Your task to perform on an android device: empty trash in google photos Image 0: 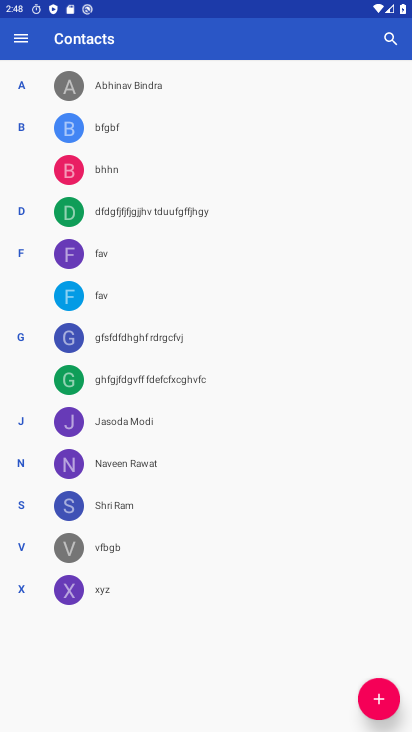
Step 0: press home button
Your task to perform on an android device: empty trash in google photos Image 1: 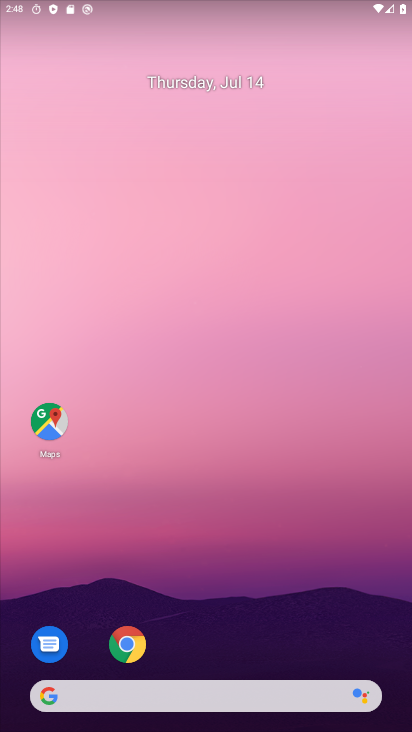
Step 1: drag from (25, 688) to (131, 324)
Your task to perform on an android device: empty trash in google photos Image 2: 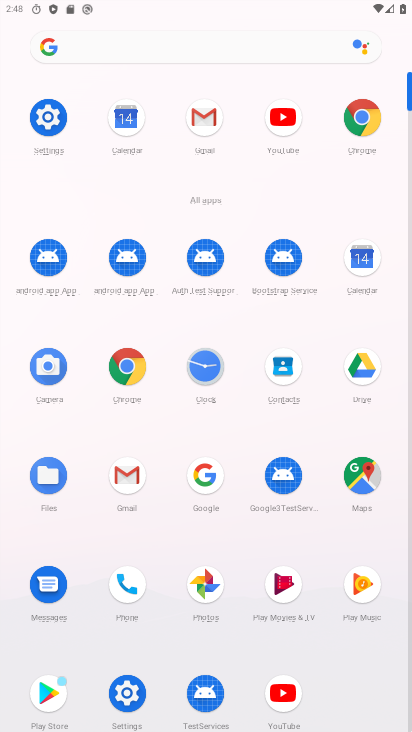
Step 2: click (198, 572)
Your task to perform on an android device: empty trash in google photos Image 3: 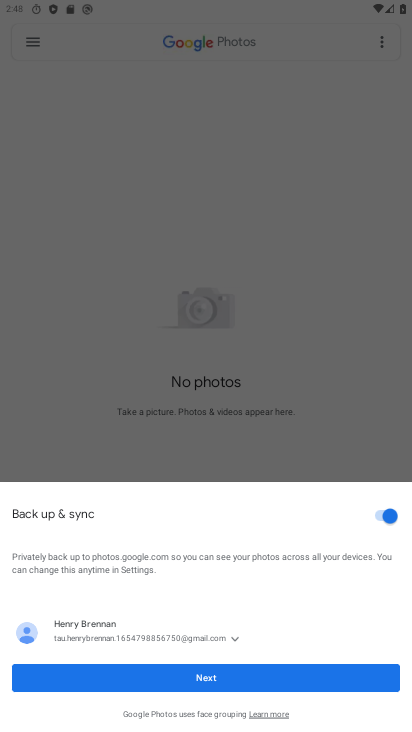
Step 3: click (88, 675)
Your task to perform on an android device: empty trash in google photos Image 4: 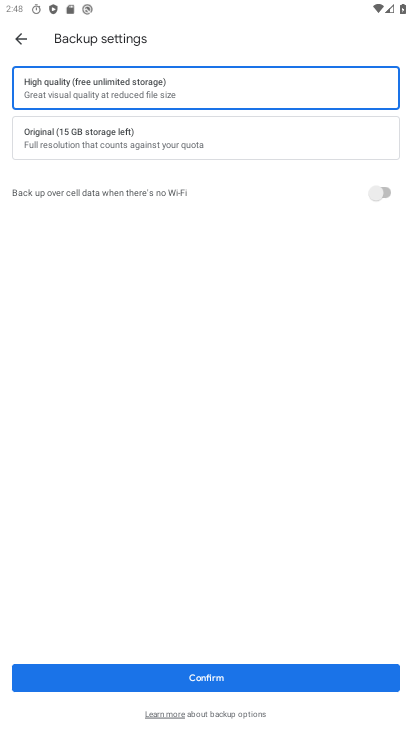
Step 4: click (109, 654)
Your task to perform on an android device: empty trash in google photos Image 5: 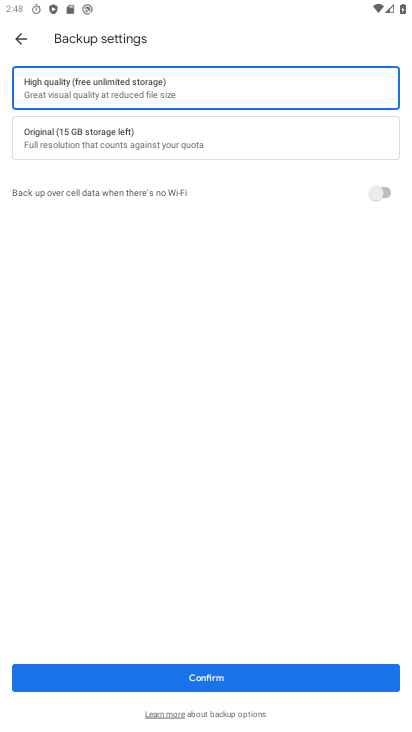
Step 5: click (105, 670)
Your task to perform on an android device: empty trash in google photos Image 6: 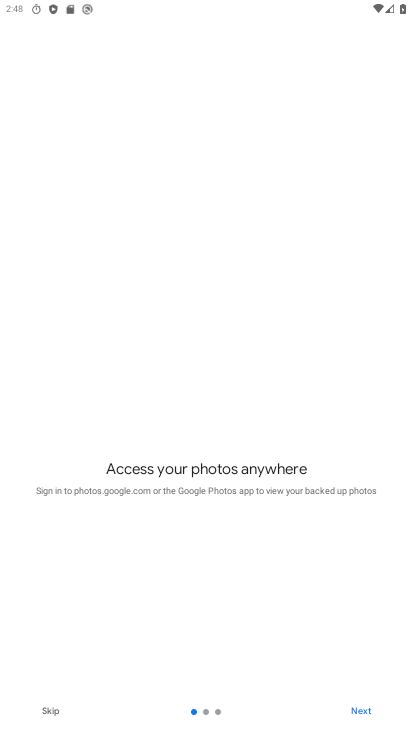
Step 6: click (368, 696)
Your task to perform on an android device: empty trash in google photos Image 7: 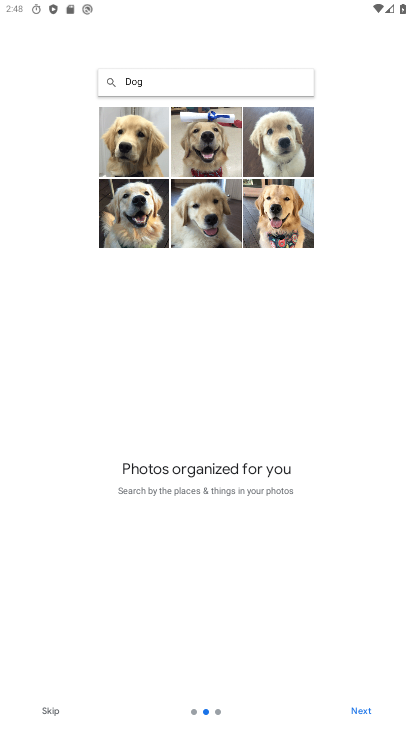
Step 7: click (370, 707)
Your task to perform on an android device: empty trash in google photos Image 8: 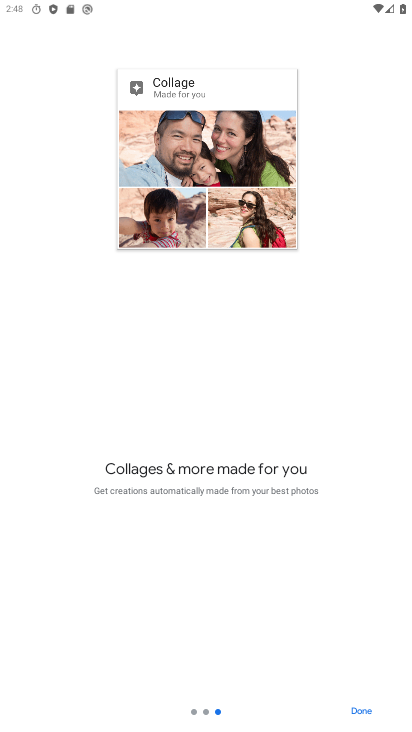
Step 8: click (366, 713)
Your task to perform on an android device: empty trash in google photos Image 9: 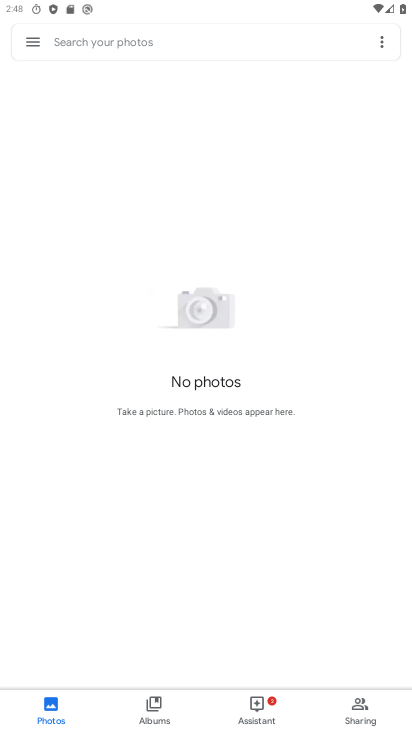
Step 9: click (29, 37)
Your task to perform on an android device: empty trash in google photos Image 10: 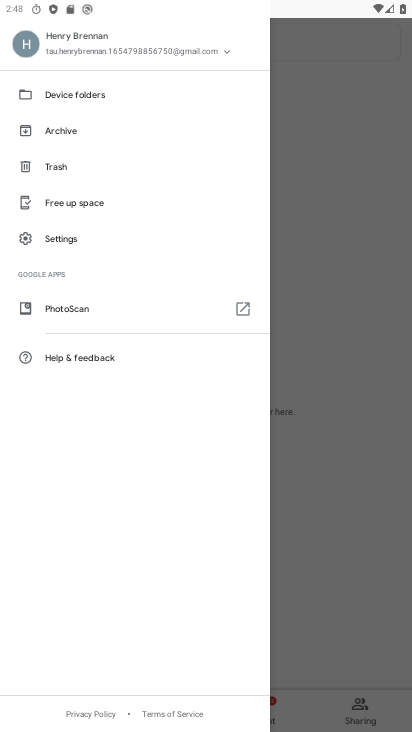
Step 10: click (47, 157)
Your task to perform on an android device: empty trash in google photos Image 11: 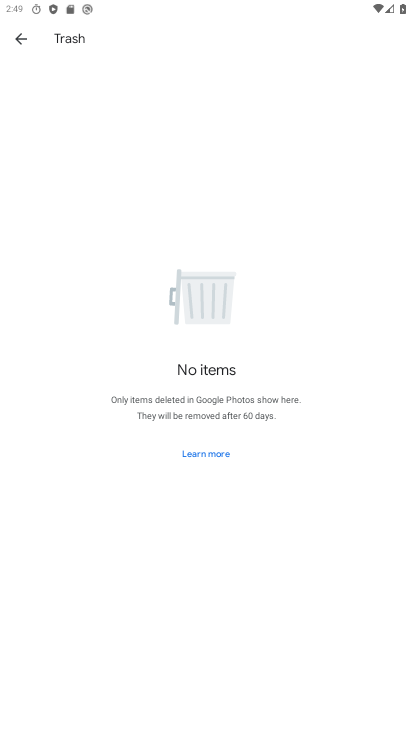
Step 11: task complete